Your task to perform on an android device: turn pop-ups off in chrome Image 0: 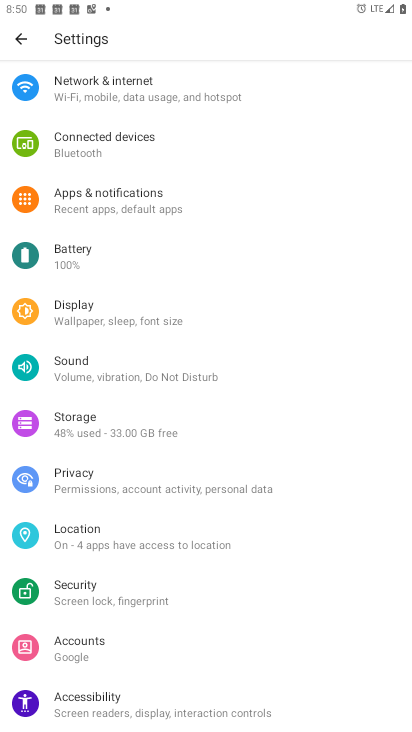
Step 0: press home button
Your task to perform on an android device: turn pop-ups off in chrome Image 1: 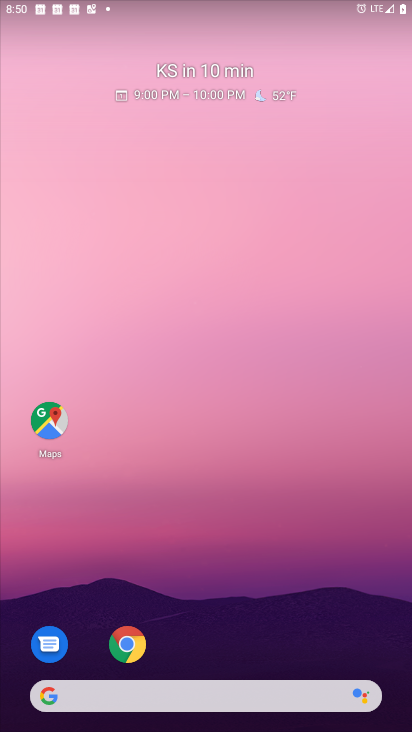
Step 1: click (128, 648)
Your task to perform on an android device: turn pop-ups off in chrome Image 2: 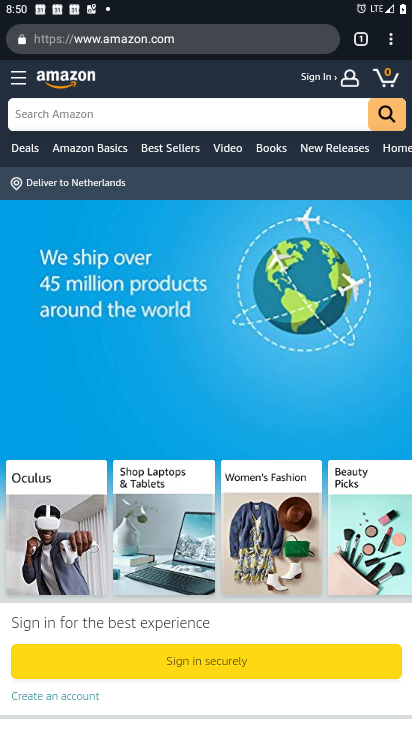
Step 2: click (392, 43)
Your task to perform on an android device: turn pop-ups off in chrome Image 3: 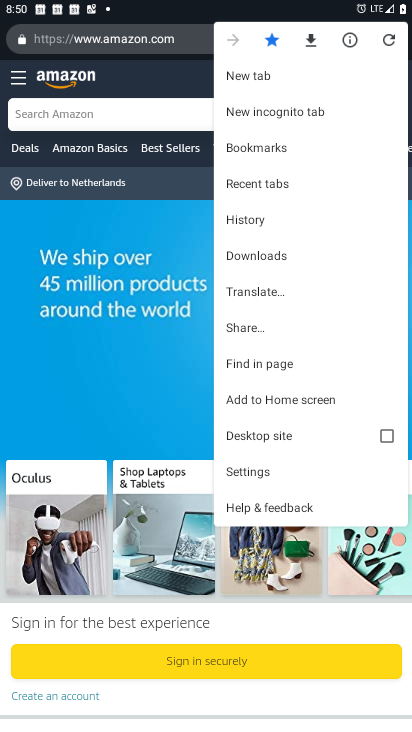
Step 3: click (249, 464)
Your task to perform on an android device: turn pop-ups off in chrome Image 4: 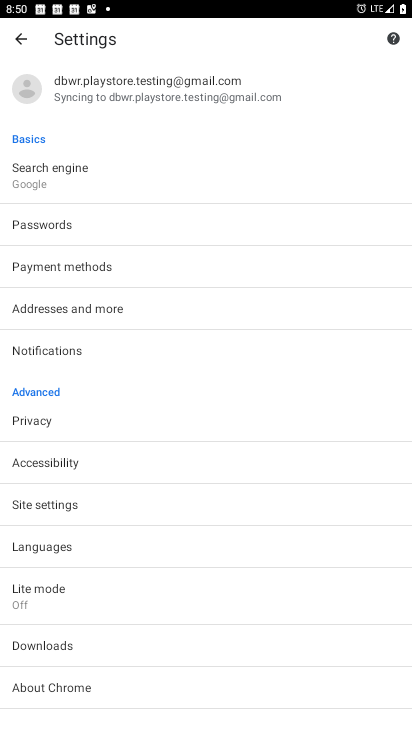
Step 4: click (31, 502)
Your task to perform on an android device: turn pop-ups off in chrome Image 5: 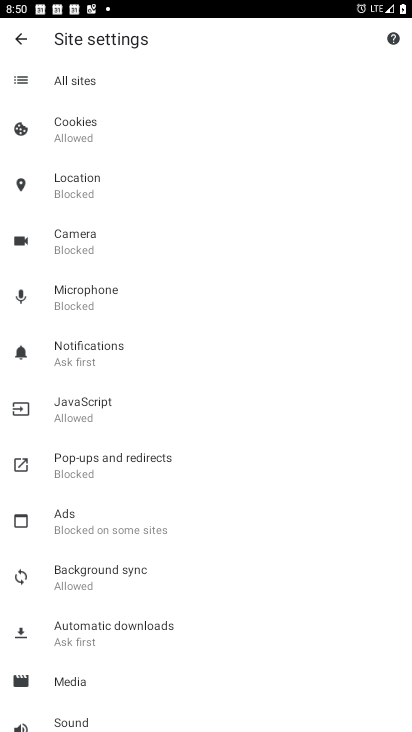
Step 5: click (77, 458)
Your task to perform on an android device: turn pop-ups off in chrome Image 6: 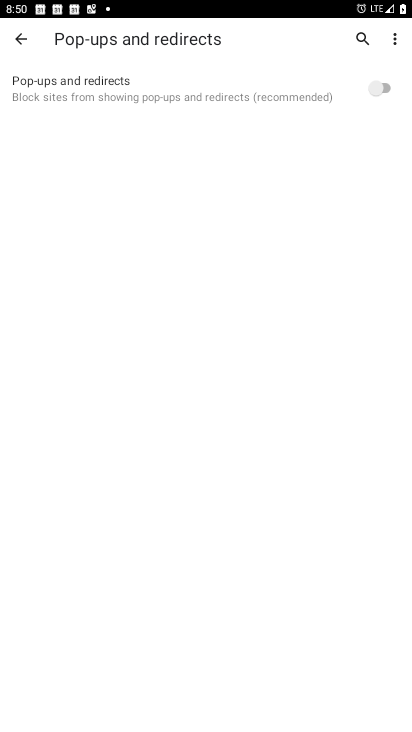
Step 6: task complete